Your task to perform on an android device: open sync settings in chrome Image 0: 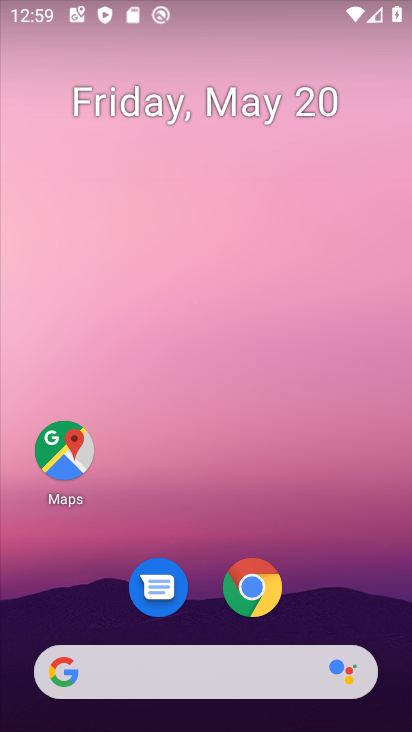
Step 0: click (248, 586)
Your task to perform on an android device: open sync settings in chrome Image 1: 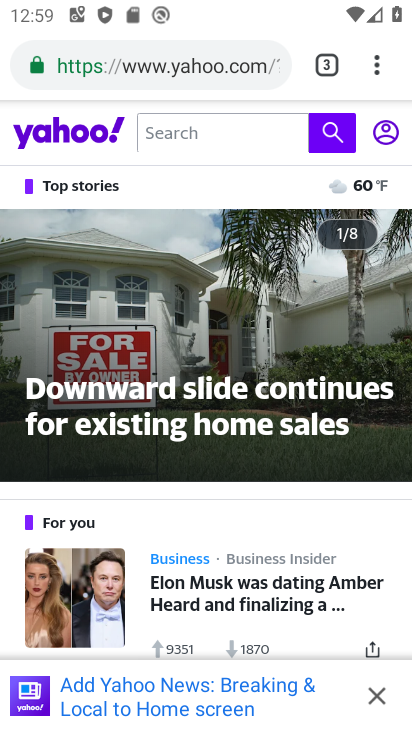
Step 1: click (374, 57)
Your task to perform on an android device: open sync settings in chrome Image 2: 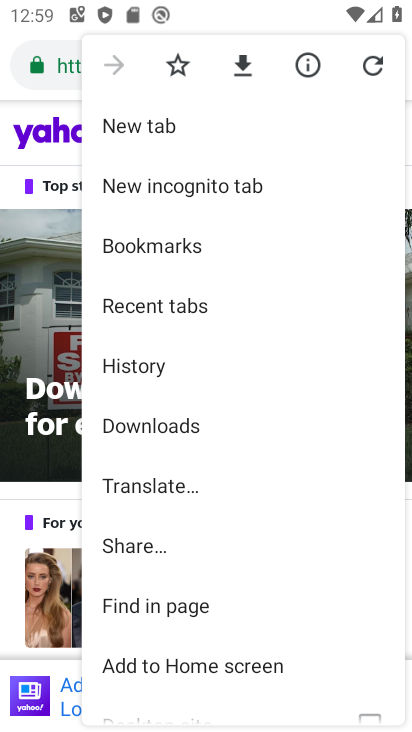
Step 2: drag from (256, 537) to (201, 73)
Your task to perform on an android device: open sync settings in chrome Image 3: 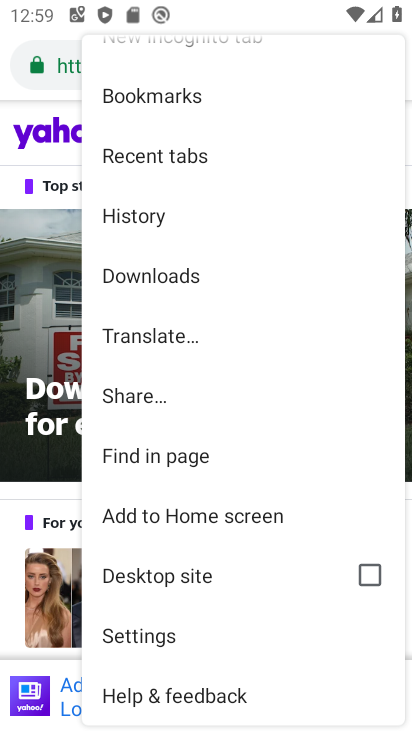
Step 3: click (144, 639)
Your task to perform on an android device: open sync settings in chrome Image 4: 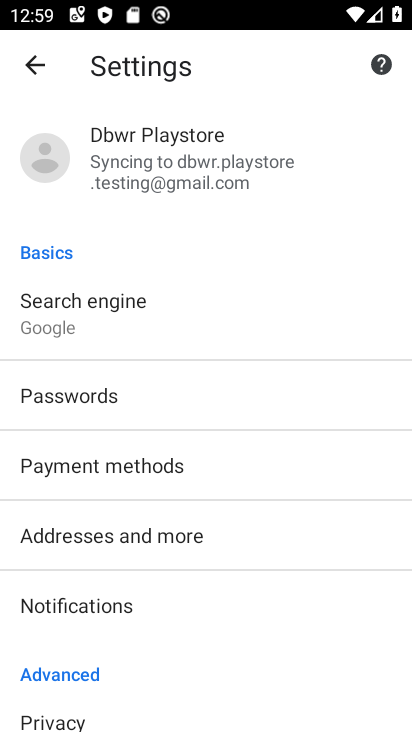
Step 4: click (120, 124)
Your task to perform on an android device: open sync settings in chrome Image 5: 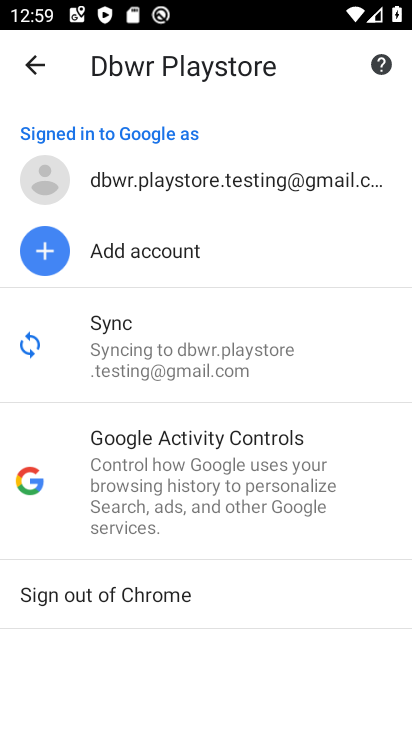
Step 5: click (121, 318)
Your task to perform on an android device: open sync settings in chrome Image 6: 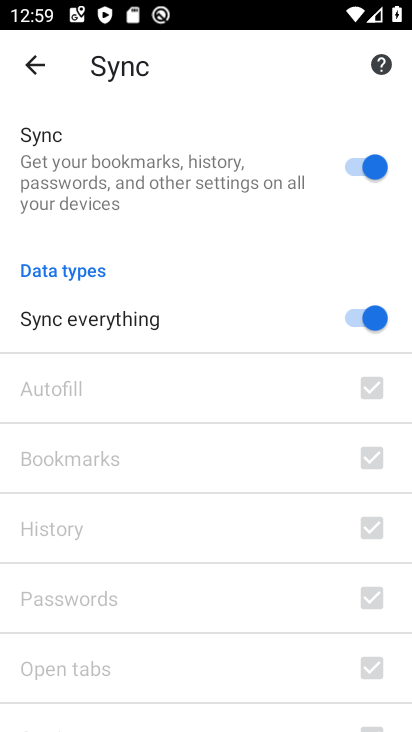
Step 6: task complete